Your task to perform on an android device: turn off airplane mode Image 0: 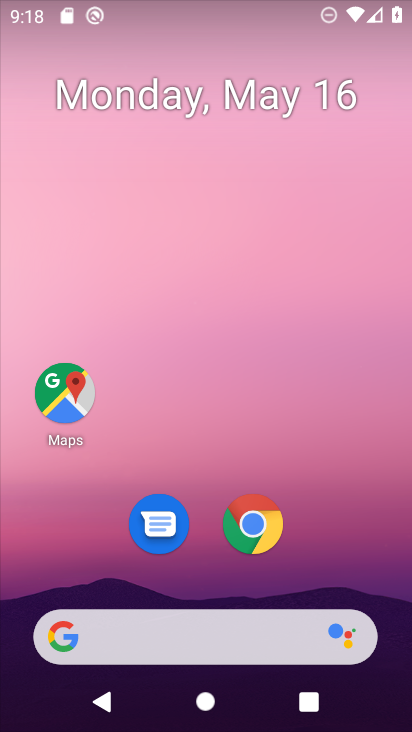
Step 0: drag from (336, 498) to (336, 21)
Your task to perform on an android device: turn off airplane mode Image 1: 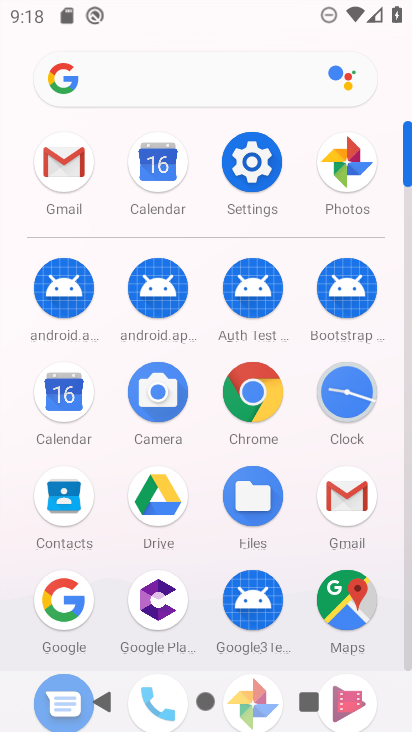
Step 1: click (264, 165)
Your task to perform on an android device: turn off airplane mode Image 2: 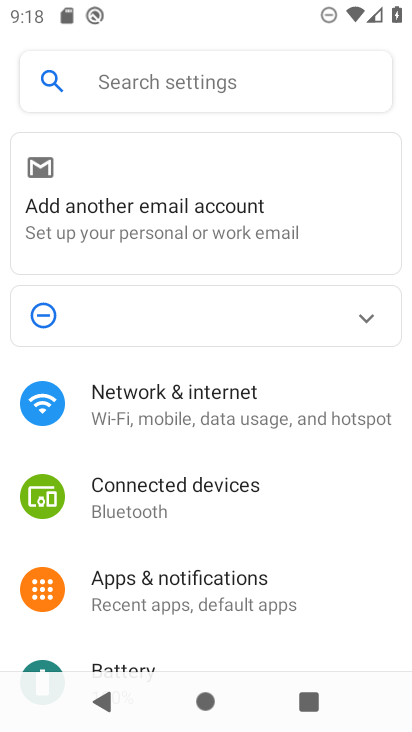
Step 2: click (205, 406)
Your task to perform on an android device: turn off airplane mode Image 3: 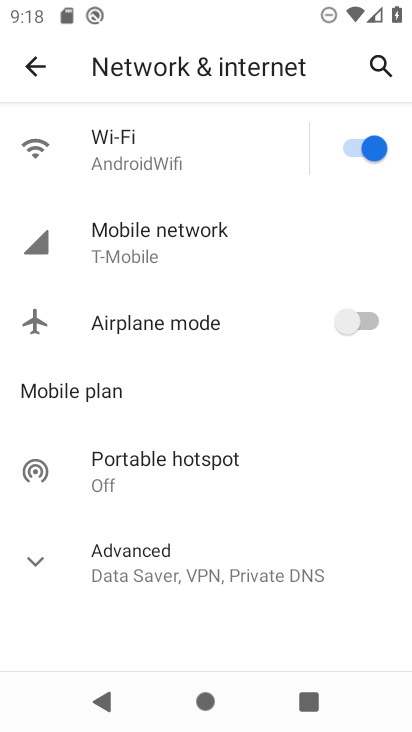
Step 3: task complete